Your task to perform on an android device: turn notification dots off Image 0: 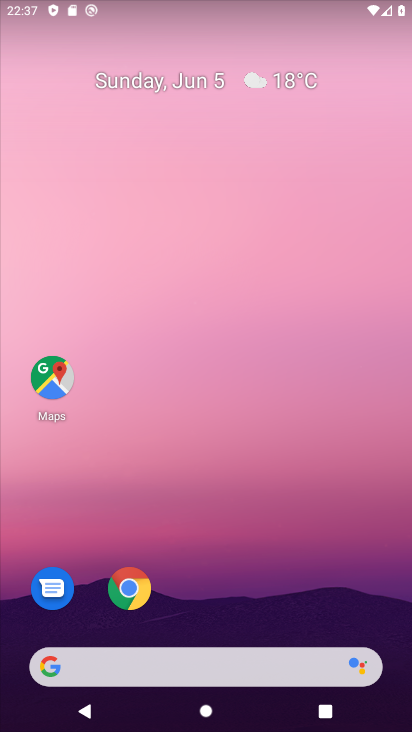
Step 0: drag from (317, 622) to (339, 190)
Your task to perform on an android device: turn notification dots off Image 1: 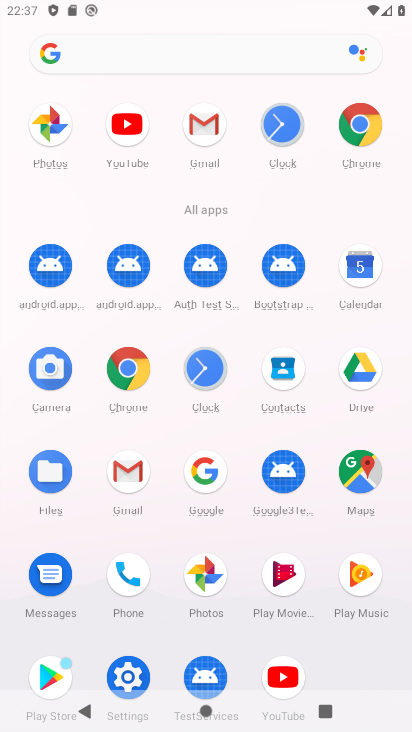
Step 1: click (119, 683)
Your task to perform on an android device: turn notification dots off Image 2: 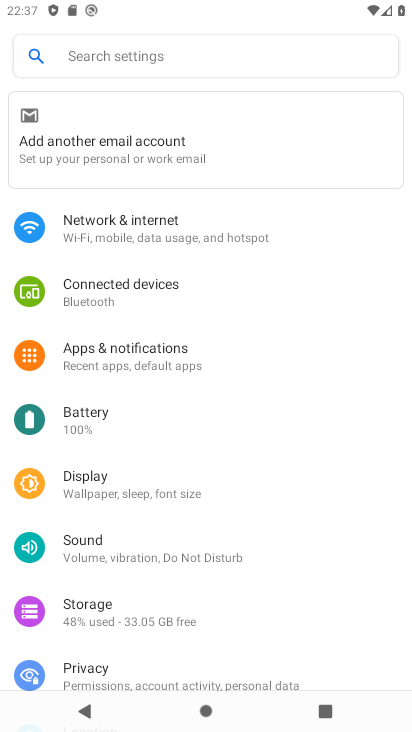
Step 2: click (183, 350)
Your task to perform on an android device: turn notification dots off Image 3: 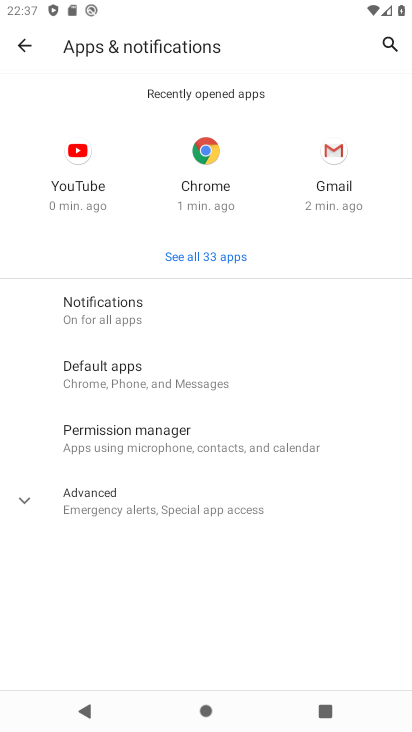
Step 3: click (171, 316)
Your task to perform on an android device: turn notification dots off Image 4: 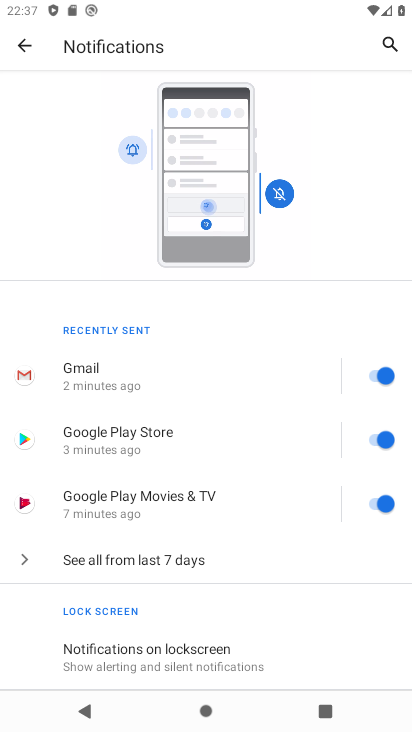
Step 4: drag from (251, 595) to (286, 360)
Your task to perform on an android device: turn notification dots off Image 5: 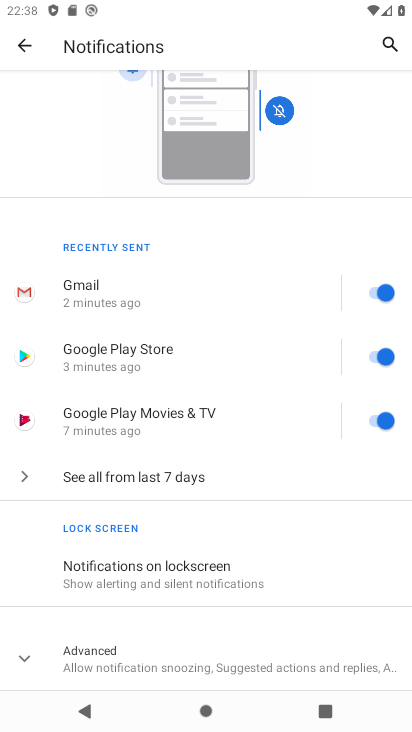
Step 5: drag from (254, 598) to (250, 416)
Your task to perform on an android device: turn notification dots off Image 6: 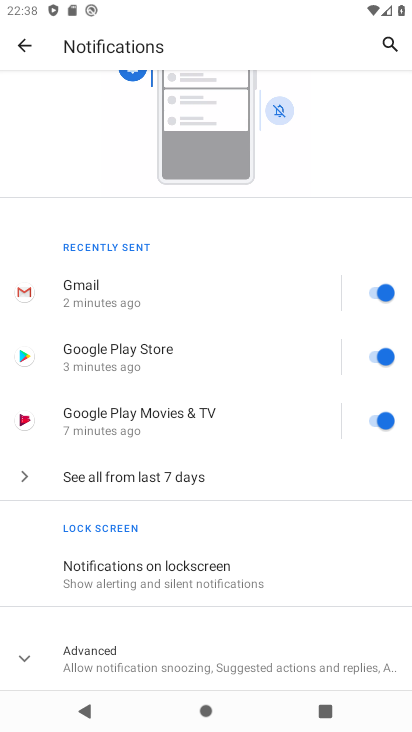
Step 6: drag from (236, 617) to (301, 381)
Your task to perform on an android device: turn notification dots off Image 7: 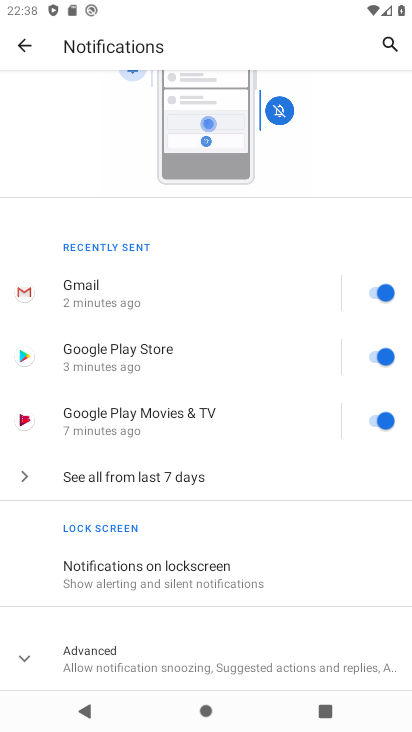
Step 7: click (262, 637)
Your task to perform on an android device: turn notification dots off Image 8: 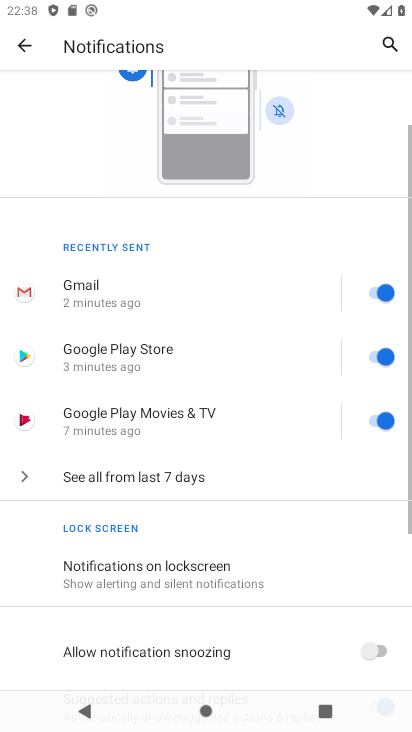
Step 8: drag from (279, 652) to (286, 330)
Your task to perform on an android device: turn notification dots off Image 9: 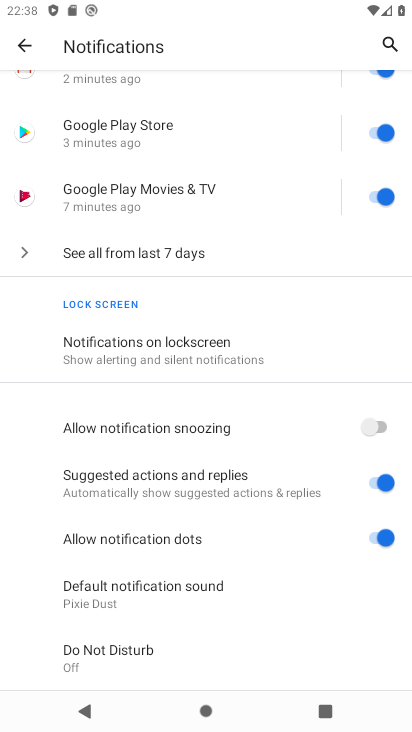
Step 9: click (379, 543)
Your task to perform on an android device: turn notification dots off Image 10: 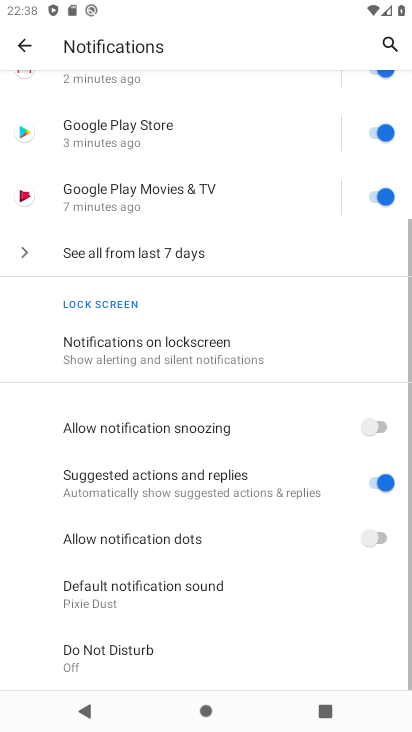
Step 10: task complete